Your task to perform on an android device: turn on notifications settings in the gmail app Image 0: 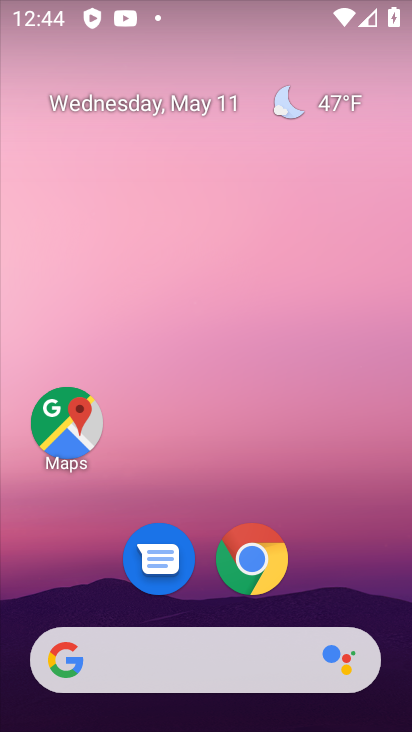
Step 0: drag from (213, 556) to (324, 3)
Your task to perform on an android device: turn on notifications settings in the gmail app Image 1: 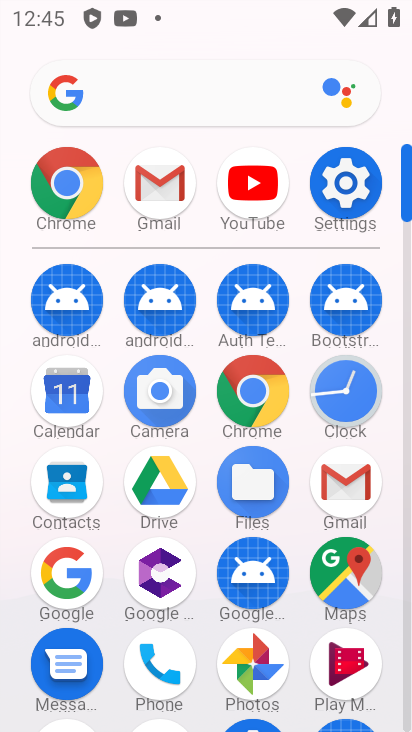
Step 1: click (347, 490)
Your task to perform on an android device: turn on notifications settings in the gmail app Image 2: 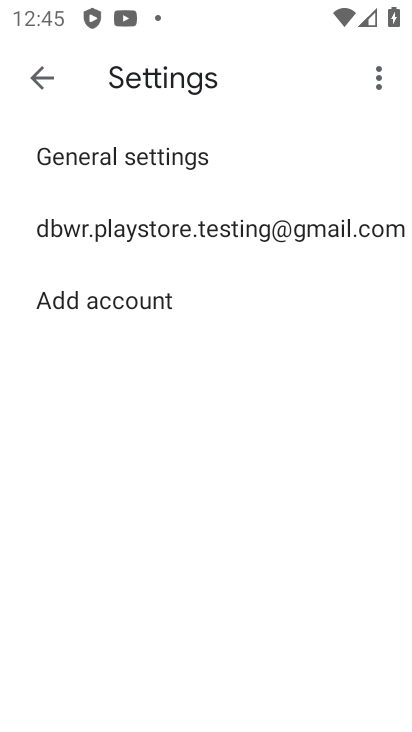
Step 2: click (114, 164)
Your task to perform on an android device: turn on notifications settings in the gmail app Image 3: 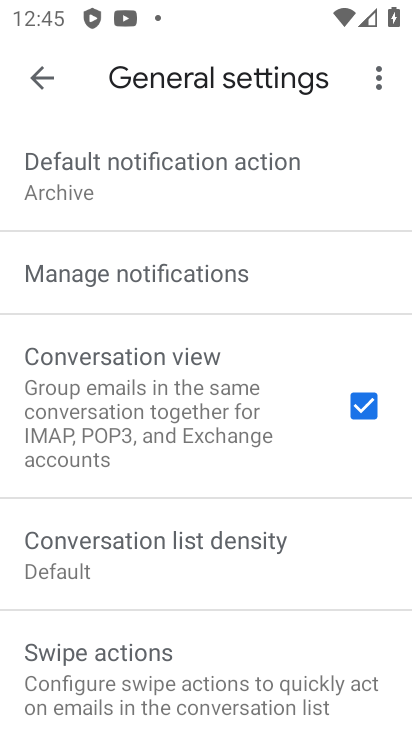
Step 3: click (175, 280)
Your task to perform on an android device: turn on notifications settings in the gmail app Image 4: 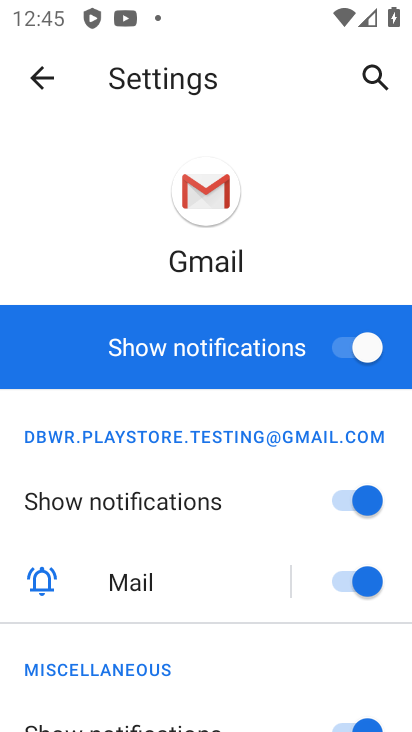
Step 4: task complete